Your task to perform on an android device: Go to notification settings Image 0: 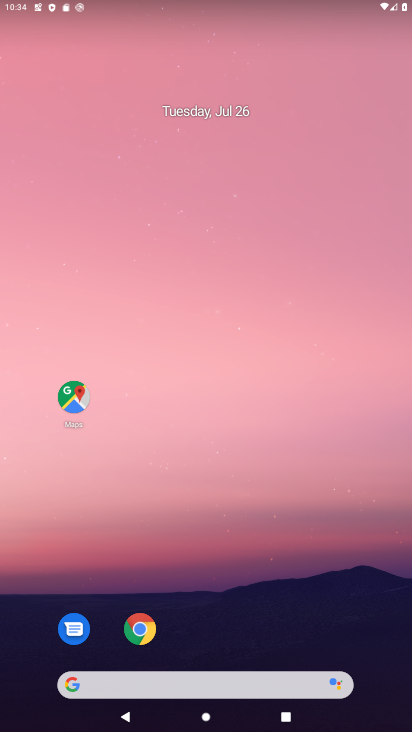
Step 0: drag from (342, 635) to (328, 138)
Your task to perform on an android device: Go to notification settings Image 1: 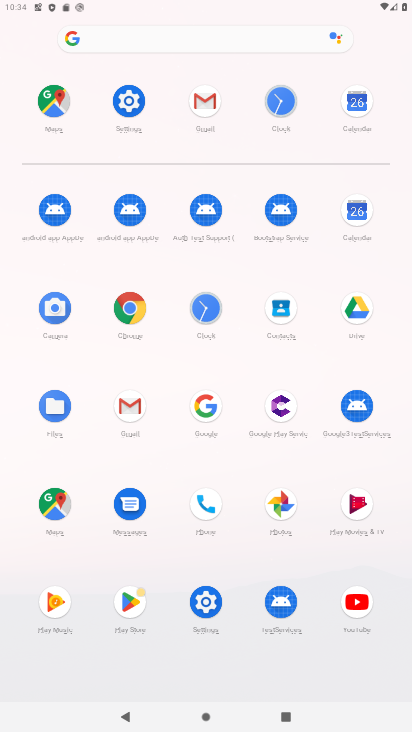
Step 1: click (207, 617)
Your task to perform on an android device: Go to notification settings Image 2: 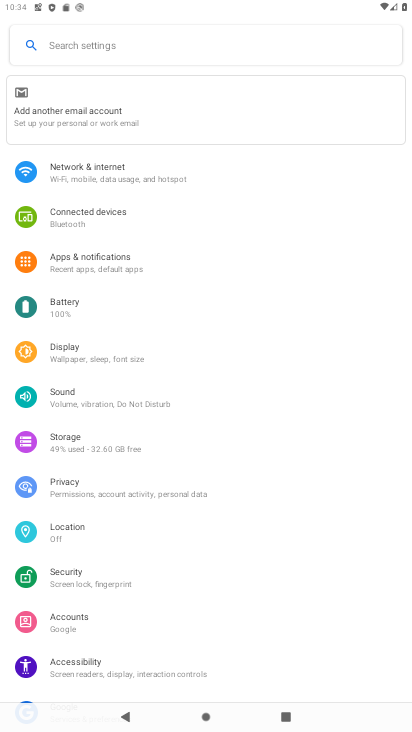
Step 2: click (157, 273)
Your task to perform on an android device: Go to notification settings Image 3: 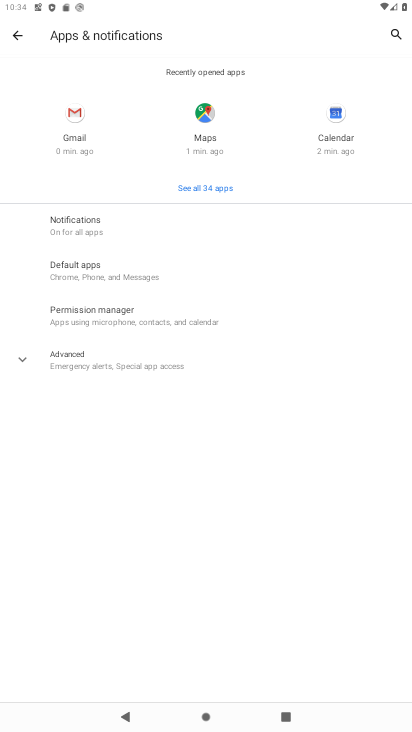
Step 3: click (138, 365)
Your task to perform on an android device: Go to notification settings Image 4: 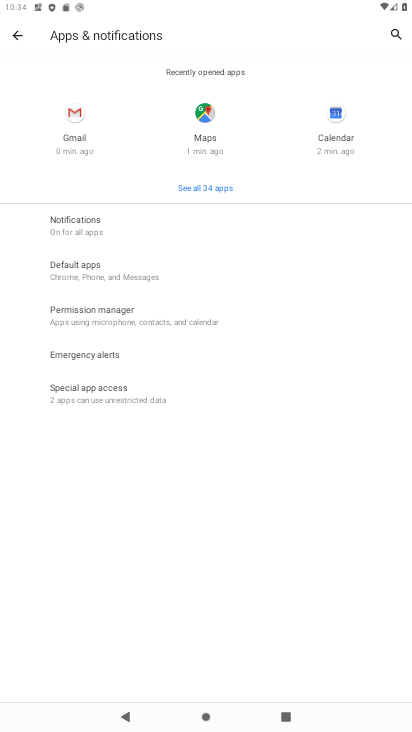
Step 4: click (88, 228)
Your task to perform on an android device: Go to notification settings Image 5: 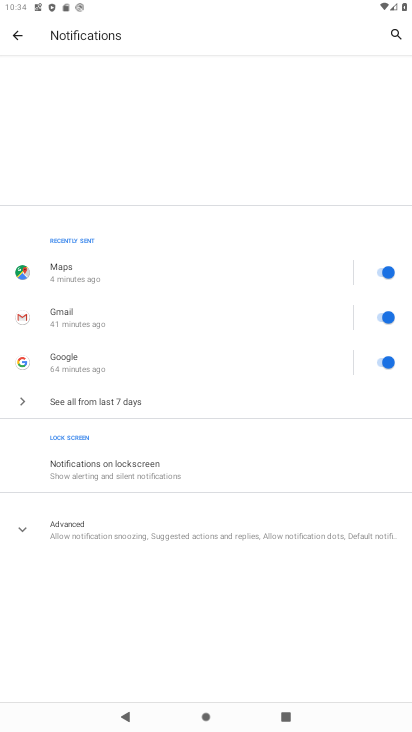
Step 5: task complete